Your task to perform on an android device: all mails in gmail Image 0: 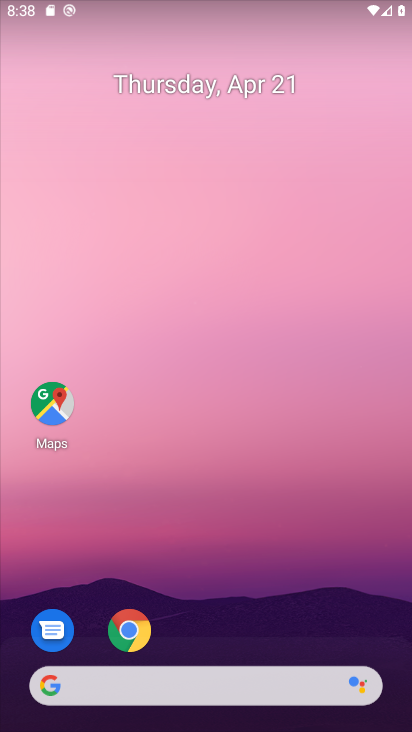
Step 0: drag from (267, 433) to (325, 135)
Your task to perform on an android device: all mails in gmail Image 1: 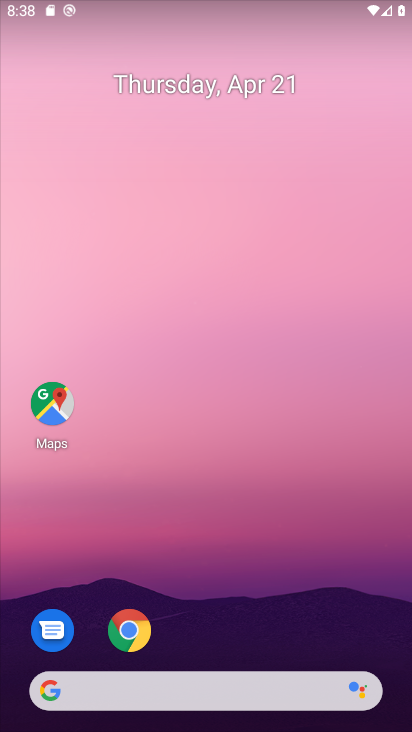
Step 1: drag from (183, 655) to (342, 144)
Your task to perform on an android device: all mails in gmail Image 2: 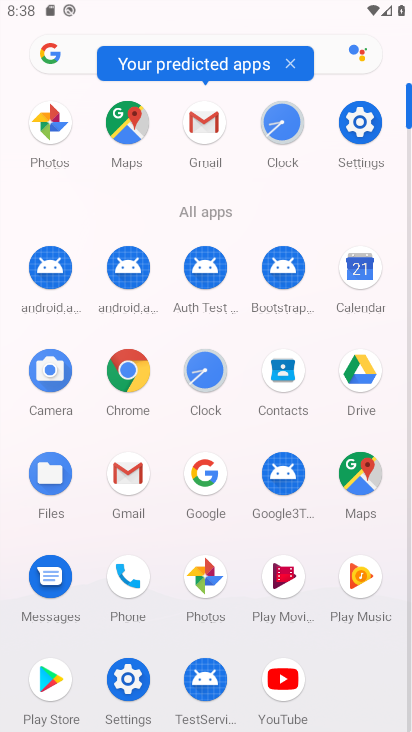
Step 2: click (131, 479)
Your task to perform on an android device: all mails in gmail Image 3: 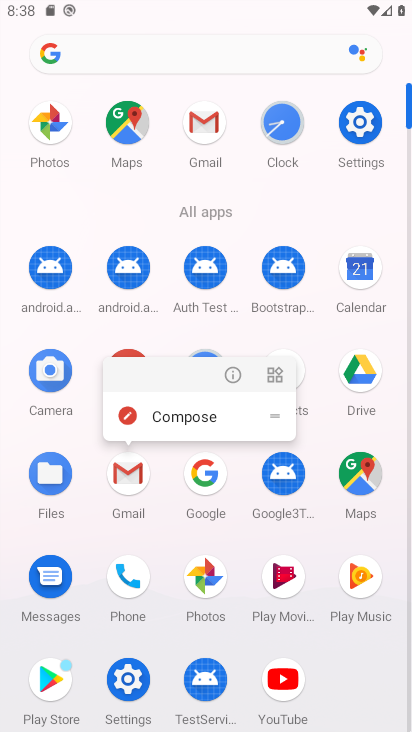
Step 3: click (131, 482)
Your task to perform on an android device: all mails in gmail Image 4: 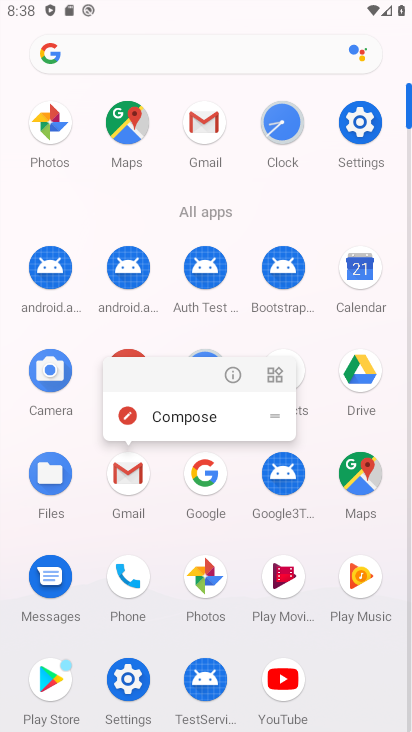
Step 4: click (131, 478)
Your task to perform on an android device: all mails in gmail Image 5: 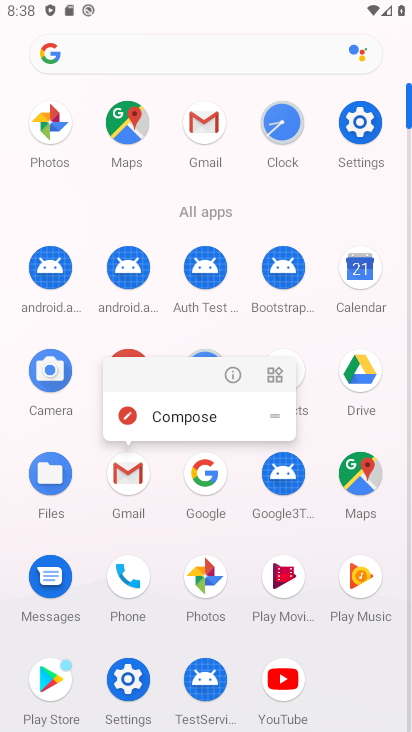
Step 5: click (123, 476)
Your task to perform on an android device: all mails in gmail Image 6: 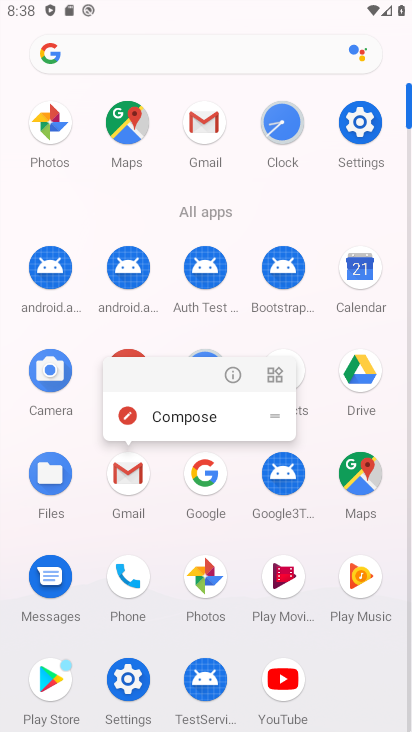
Step 6: click (125, 475)
Your task to perform on an android device: all mails in gmail Image 7: 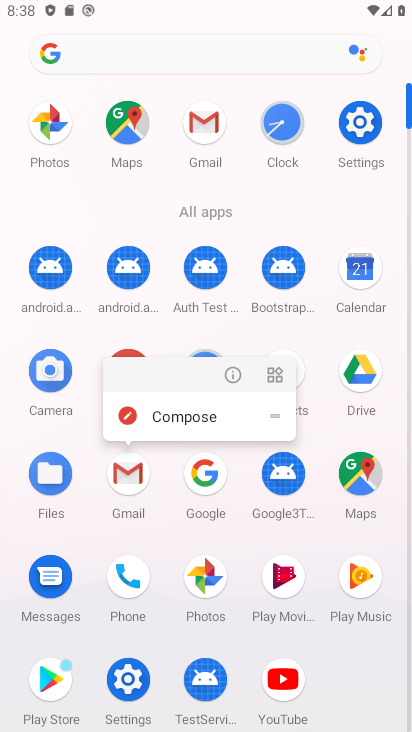
Step 7: click (124, 478)
Your task to perform on an android device: all mails in gmail Image 8: 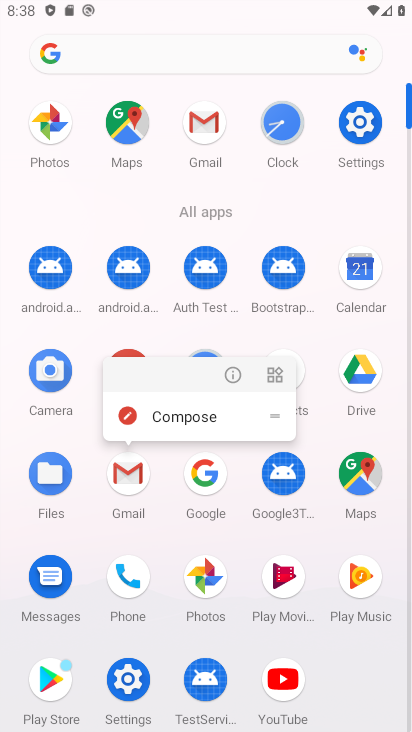
Step 8: click (132, 476)
Your task to perform on an android device: all mails in gmail Image 9: 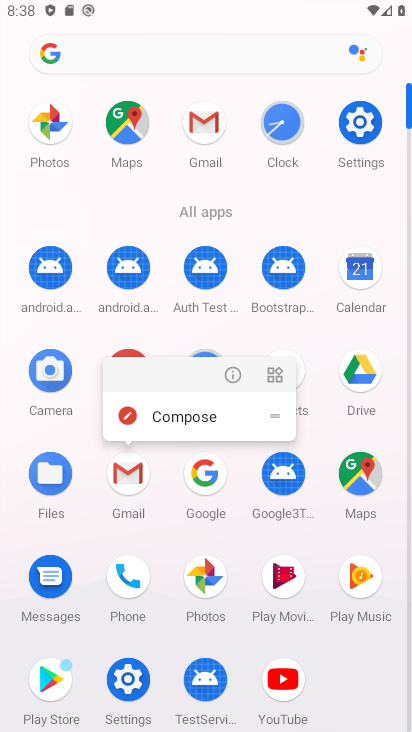
Step 9: click (139, 467)
Your task to perform on an android device: all mails in gmail Image 10: 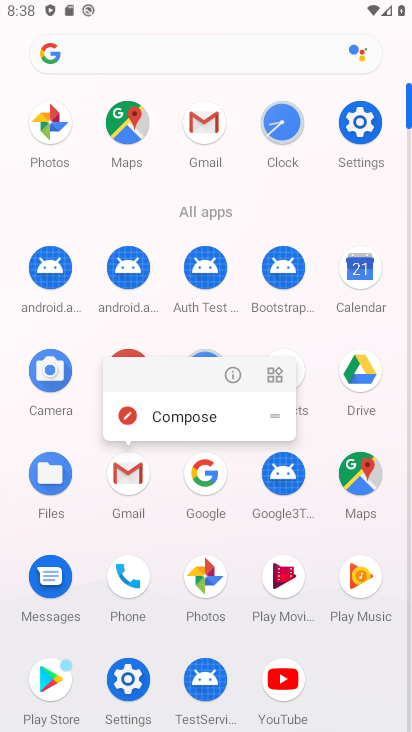
Step 10: click (134, 491)
Your task to perform on an android device: all mails in gmail Image 11: 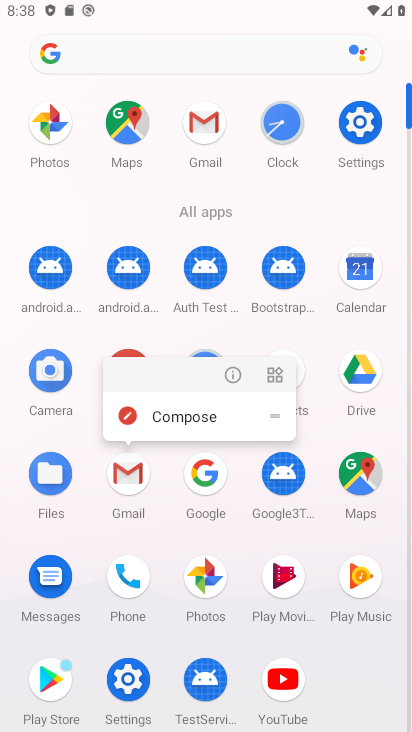
Step 11: click (113, 481)
Your task to perform on an android device: all mails in gmail Image 12: 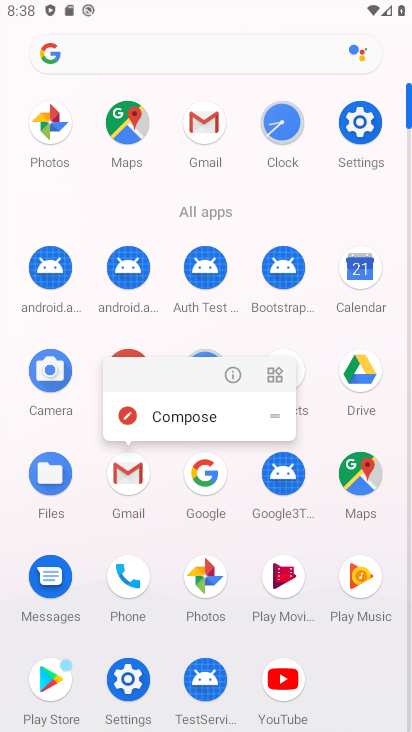
Step 12: click (122, 475)
Your task to perform on an android device: all mails in gmail Image 13: 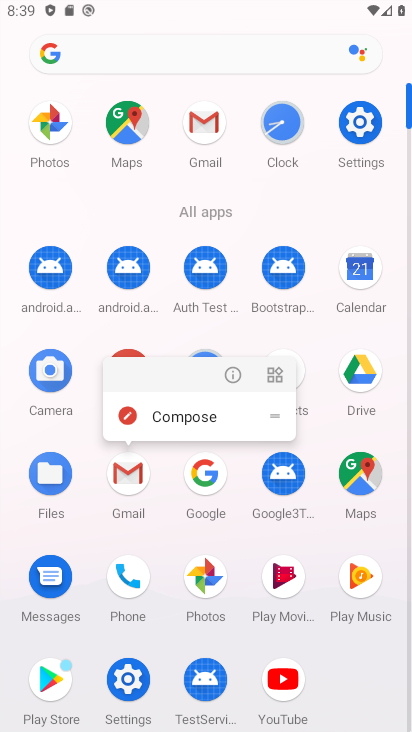
Step 13: click (133, 481)
Your task to perform on an android device: all mails in gmail Image 14: 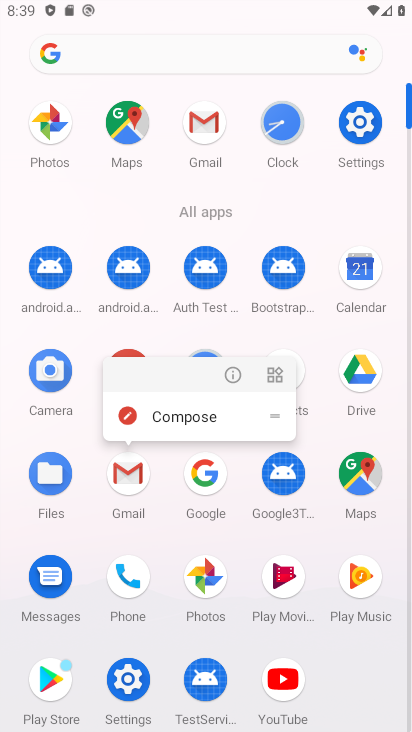
Step 14: click (130, 465)
Your task to perform on an android device: all mails in gmail Image 15: 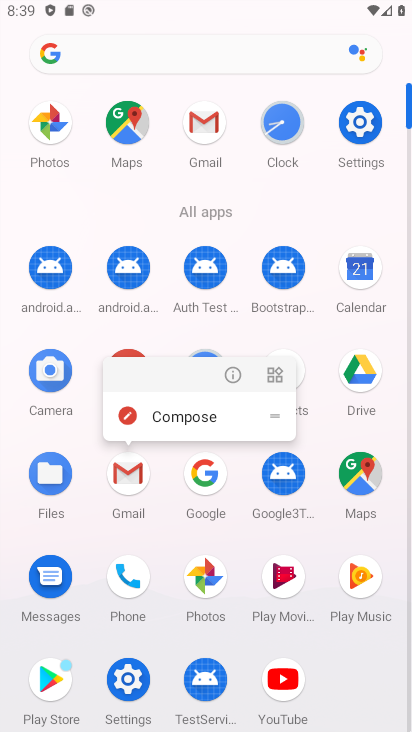
Step 15: click (129, 492)
Your task to perform on an android device: all mails in gmail Image 16: 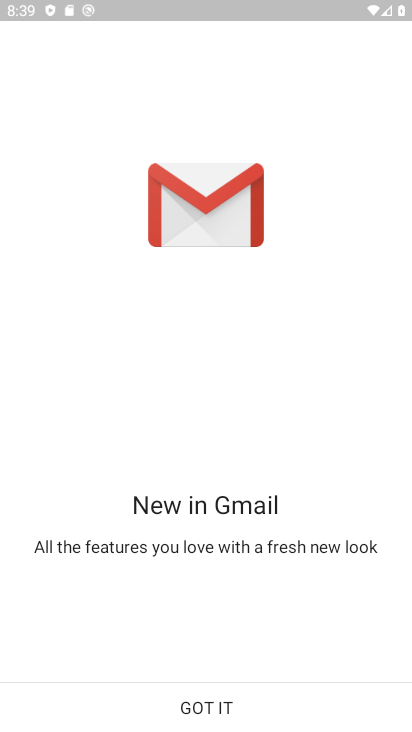
Step 16: click (237, 715)
Your task to perform on an android device: all mails in gmail Image 17: 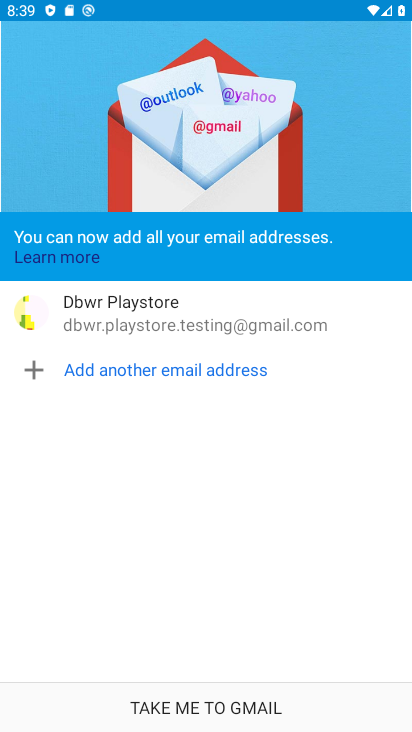
Step 17: click (237, 713)
Your task to perform on an android device: all mails in gmail Image 18: 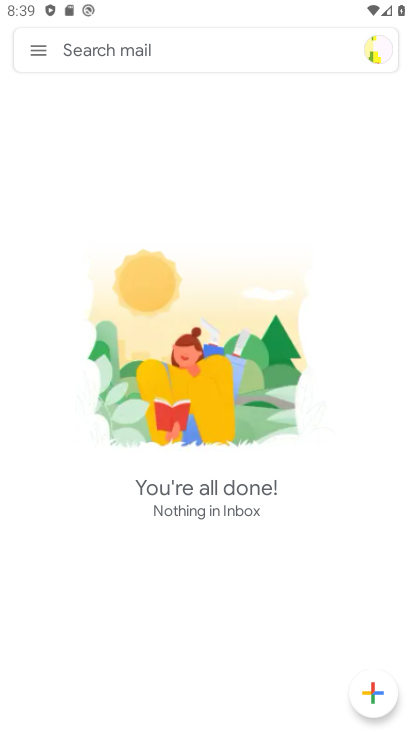
Step 18: click (48, 54)
Your task to perform on an android device: all mails in gmail Image 19: 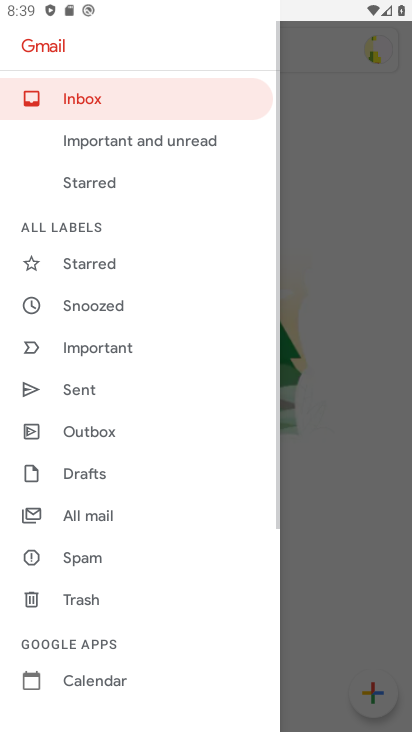
Step 19: click (145, 516)
Your task to perform on an android device: all mails in gmail Image 20: 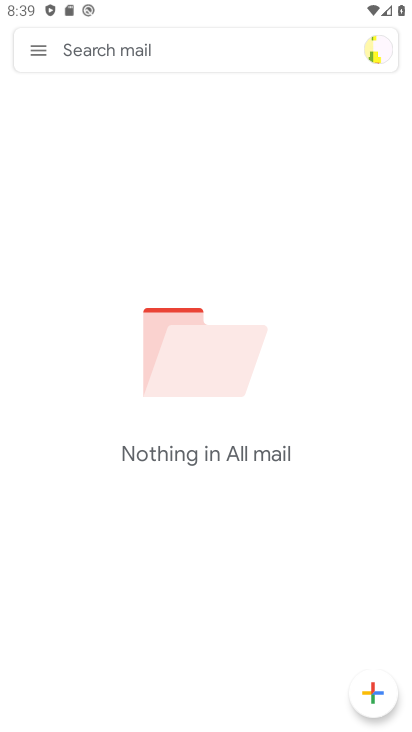
Step 20: task complete